Your task to perform on an android device: open app "YouTube Kids" (install if not already installed) and go to login screen Image 0: 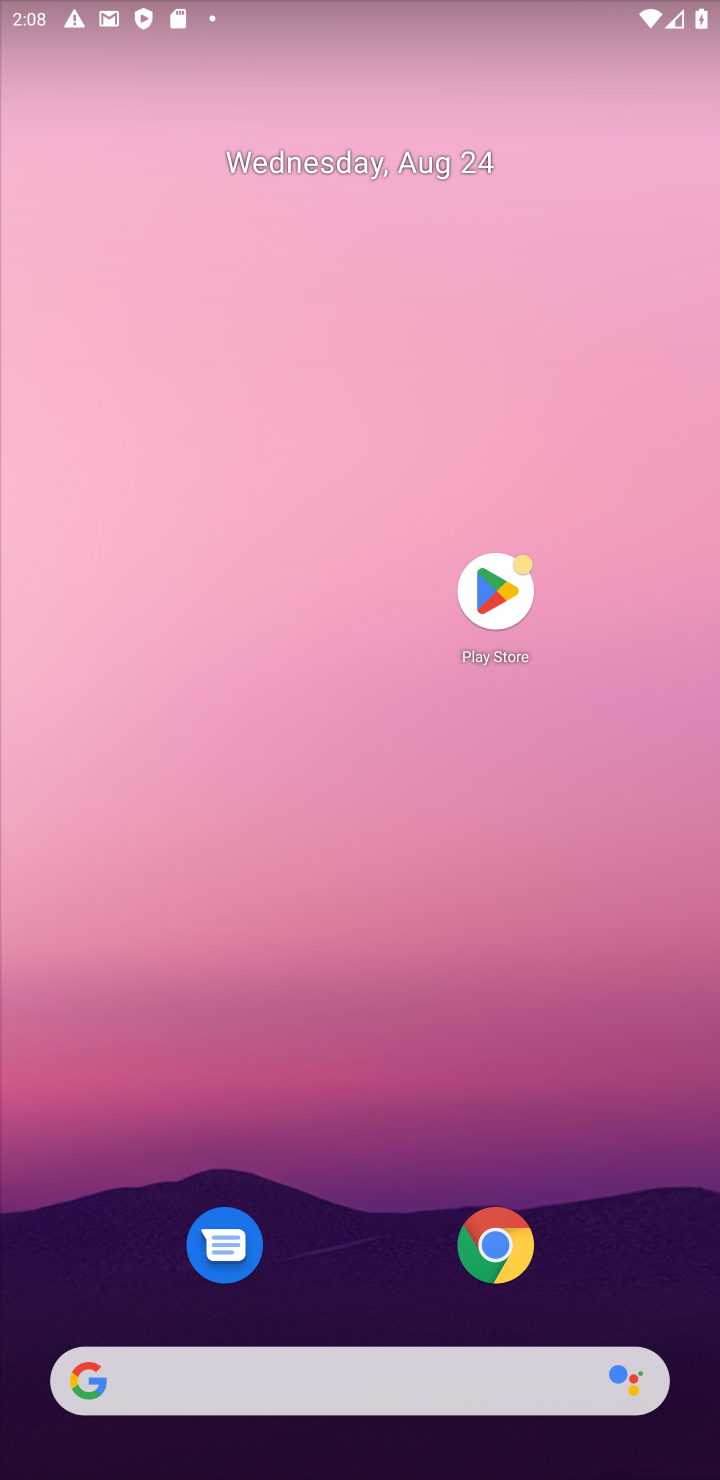
Step 0: click (504, 596)
Your task to perform on an android device: open app "YouTube Kids" (install if not already installed) and go to login screen Image 1: 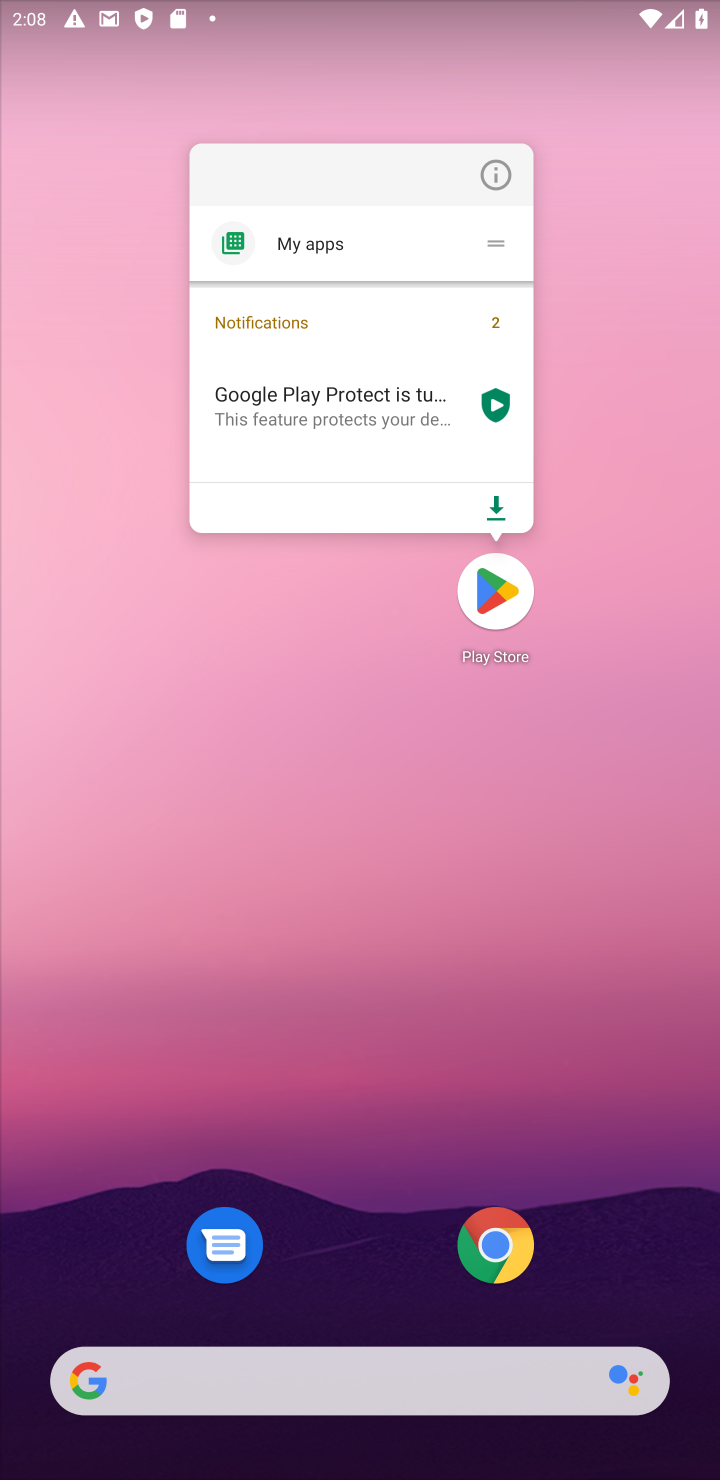
Step 1: click (504, 605)
Your task to perform on an android device: open app "YouTube Kids" (install if not already installed) and go to login screen Image 2: 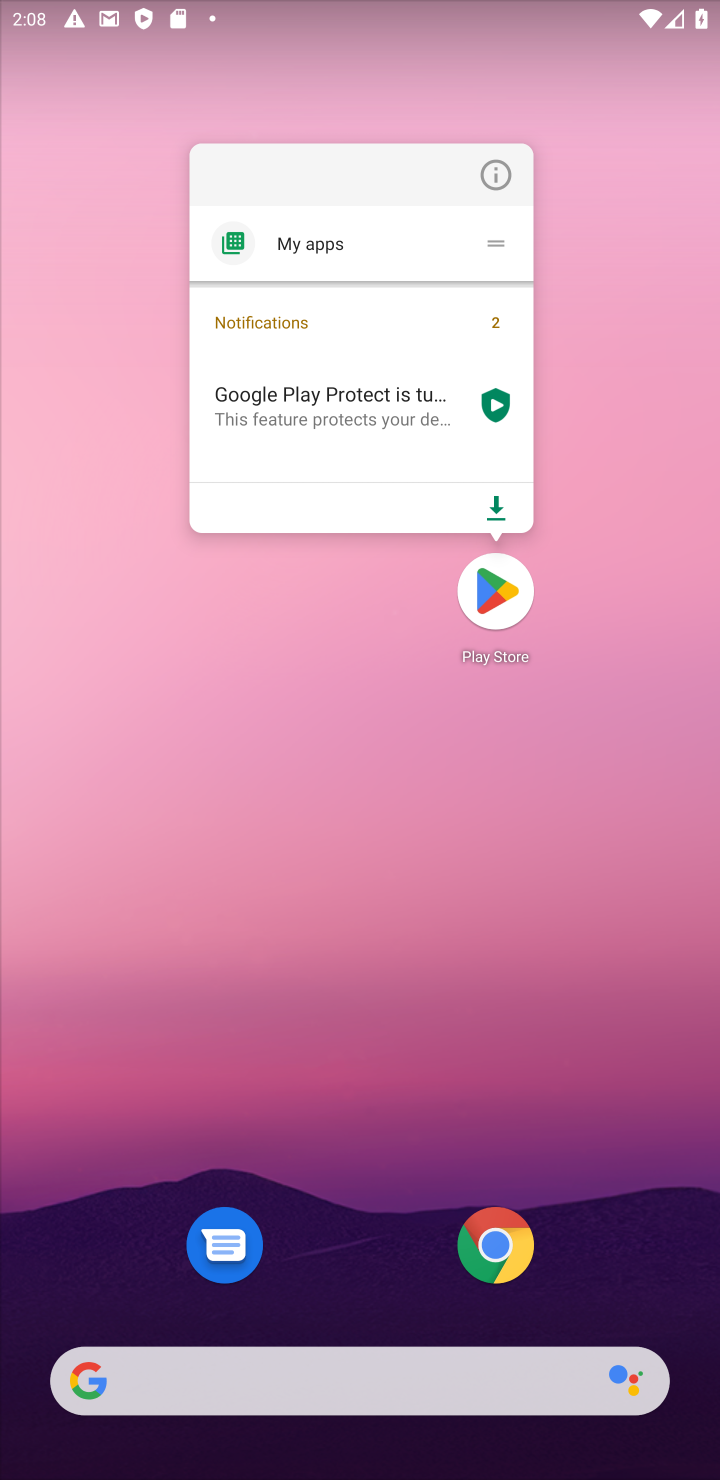
Step 2: click (504, 589)
Your task to perform on an android device: open app "YouTube Kids" (install if not already installed) and go to login screen Image 3: 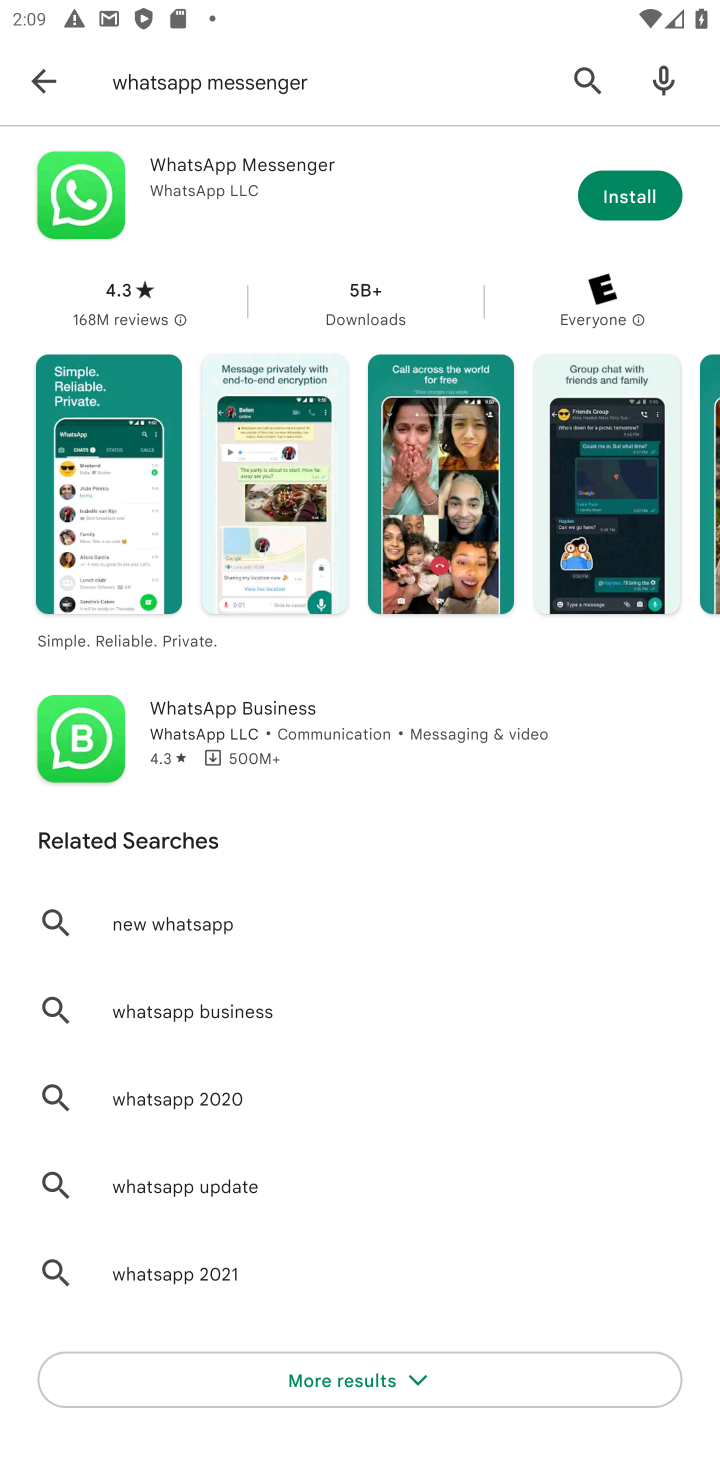
Step 3: click (580, 71)
Your task to perform on an android device: open app "YouTube Kids" (install if not already installed) and go to login screen Image 4: 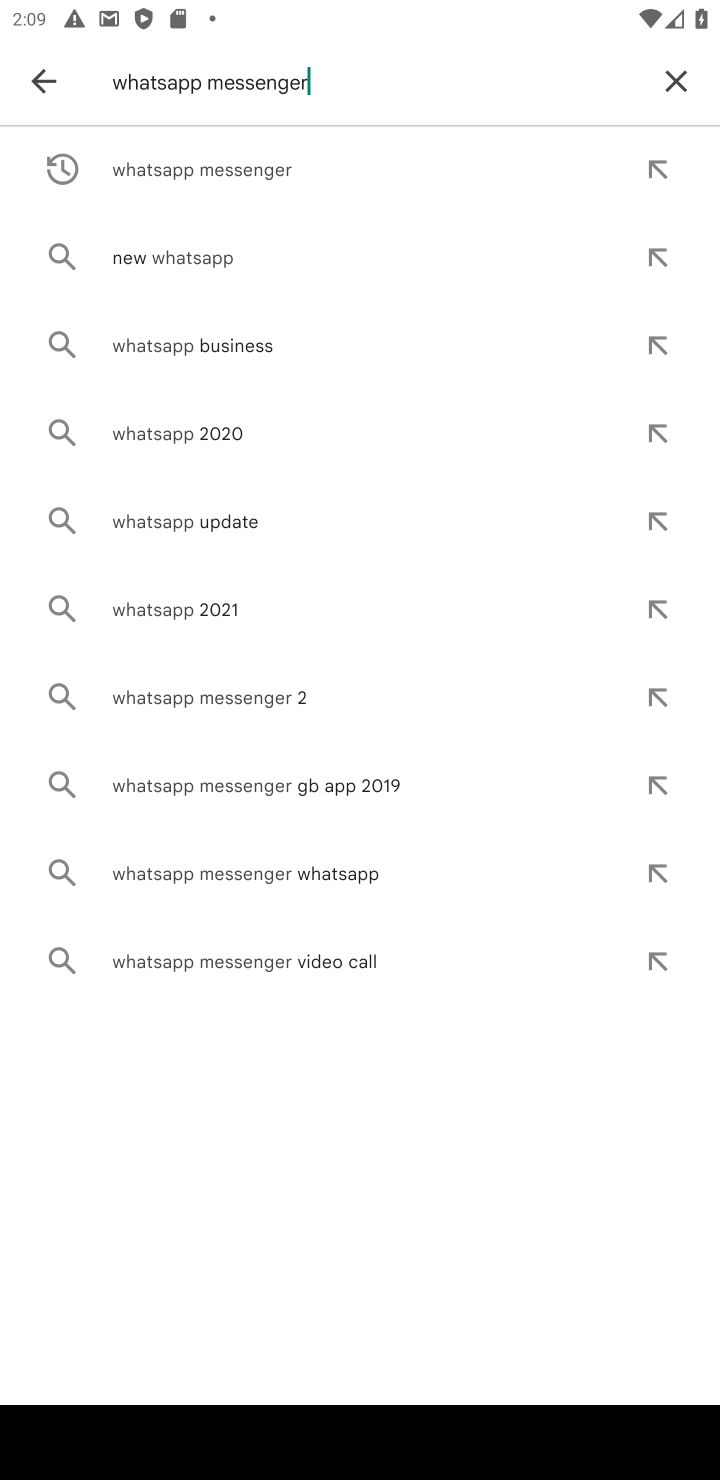
Step 4: click (666, 70)
Your task to perform on an android device: open app "YouTube Kids" (install if not already installed) and go to login screen Image 5: 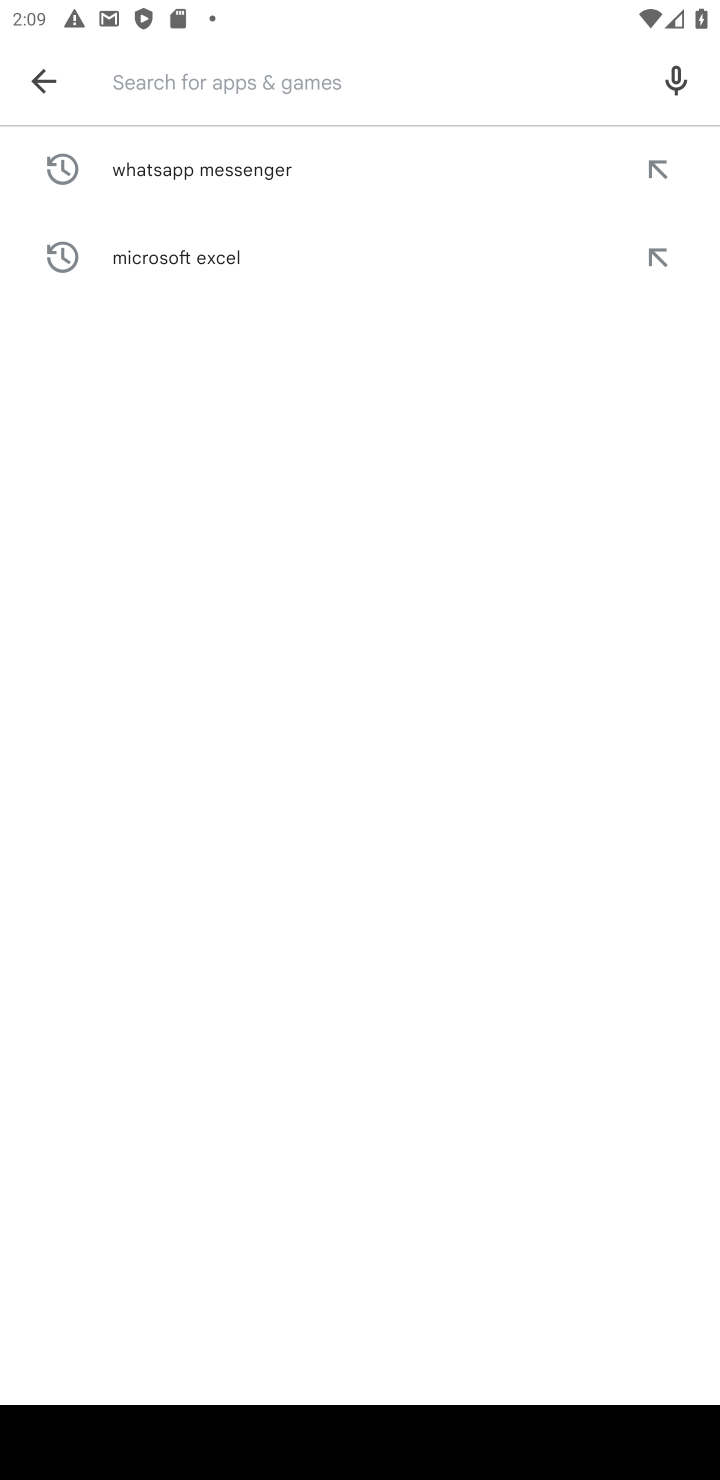
Step 5: type "YouTube Kids"
Your task to perform on an android device: open app "YouTube Kids" (install if not already installed) and go to login screen Image 6: 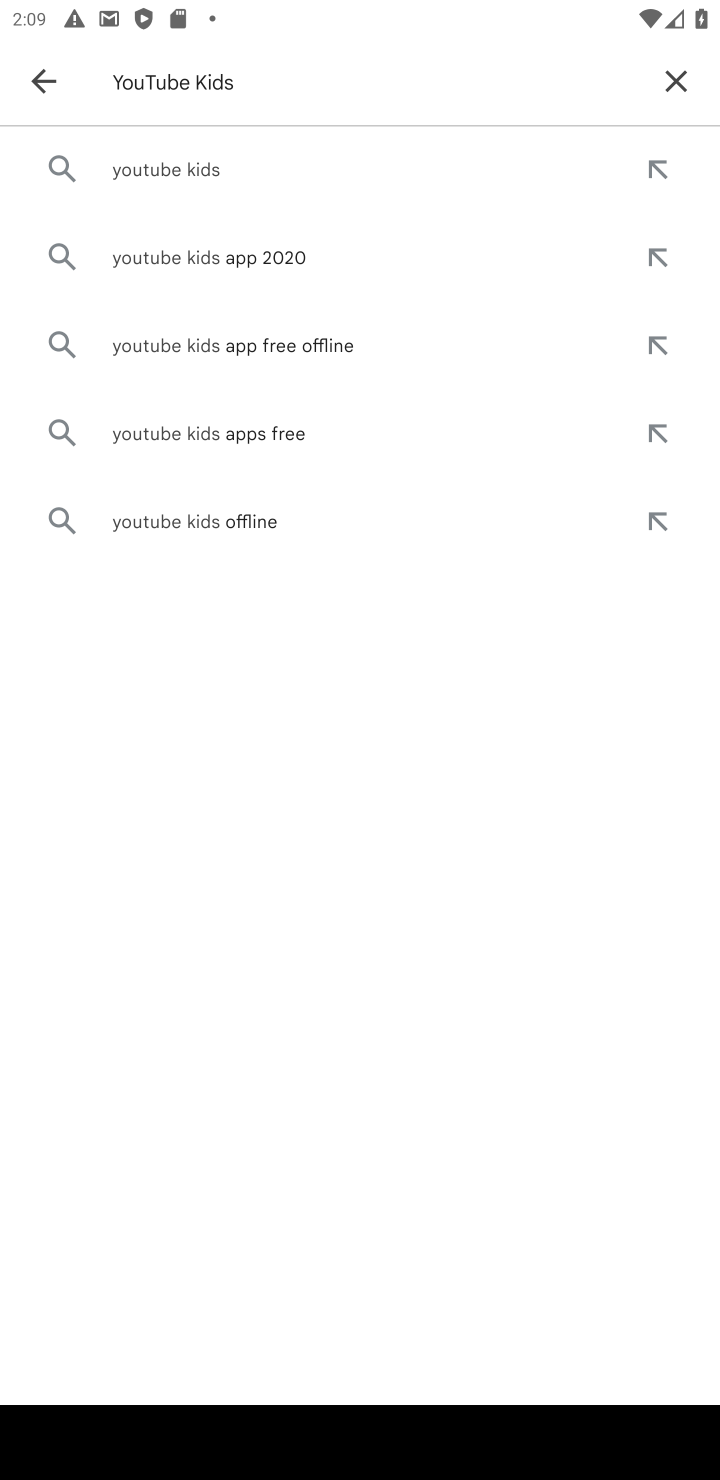
Step 6: click (181, 169)
Your task to perform on an android device: open app "YouTube Kids" (install if not already installed) and go to login screen Image 7: 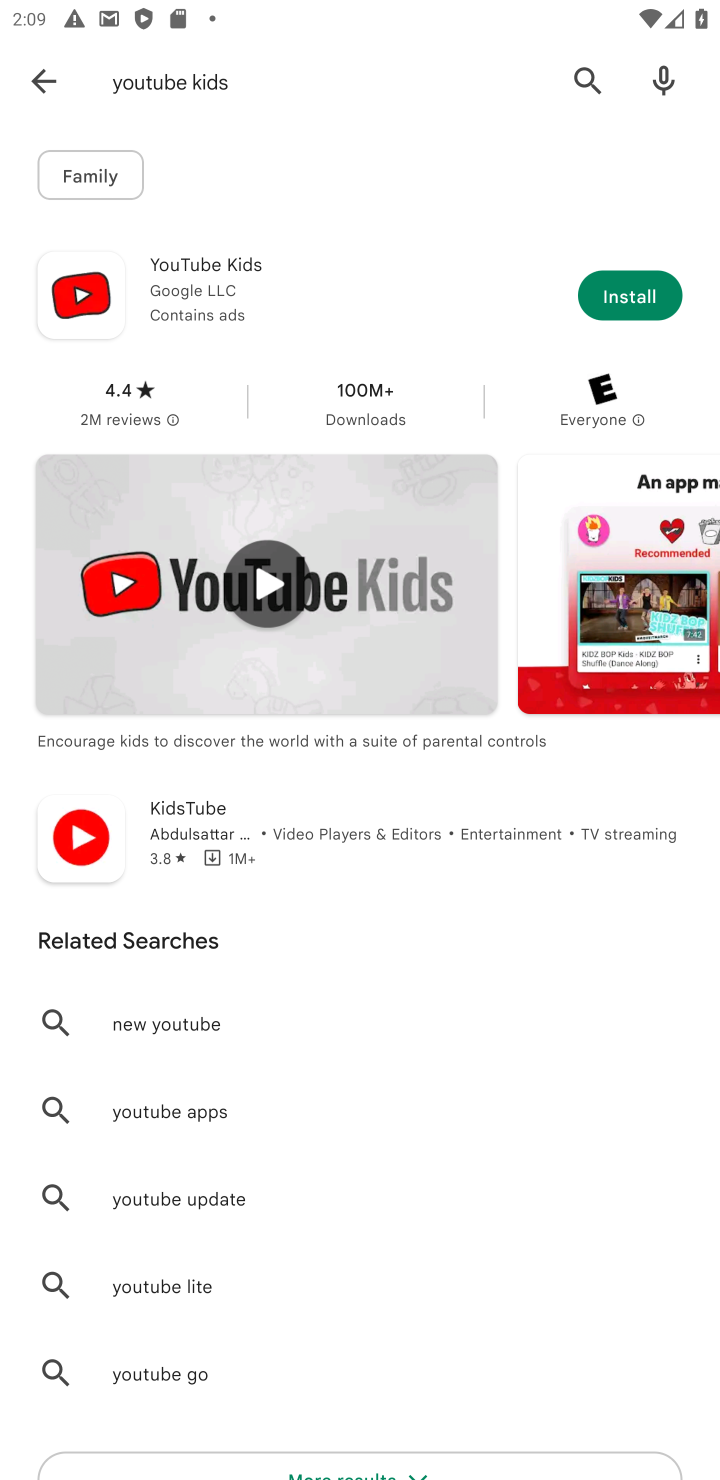
Step 7: click (630, 298)
Your task to perform on an android device: open app "YouTube Kids" (install if not already installed) and go to login screen Image 8: 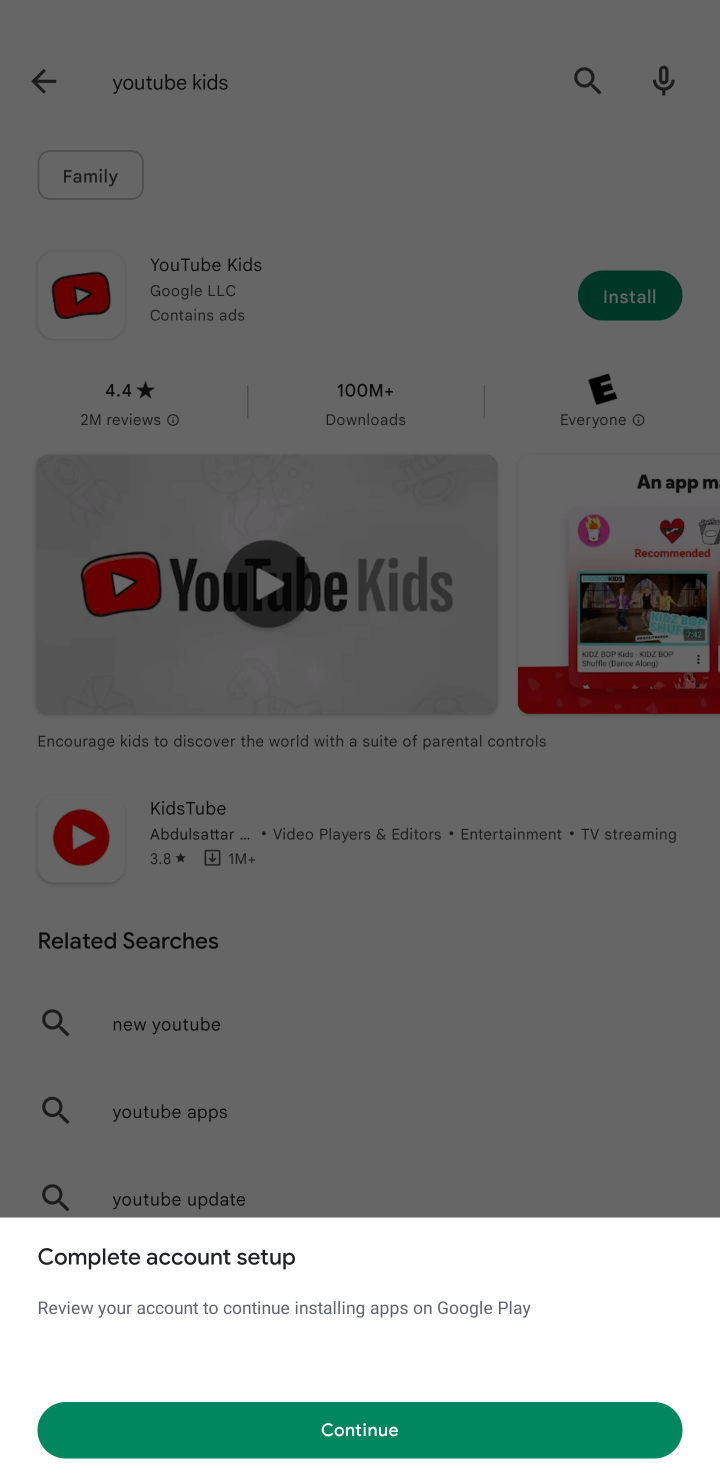
Step 8: click (348, 1427)
Your task to perform on an android device: open app "YouTube Kids" (install if not already installed) and go to login screen Image 9: 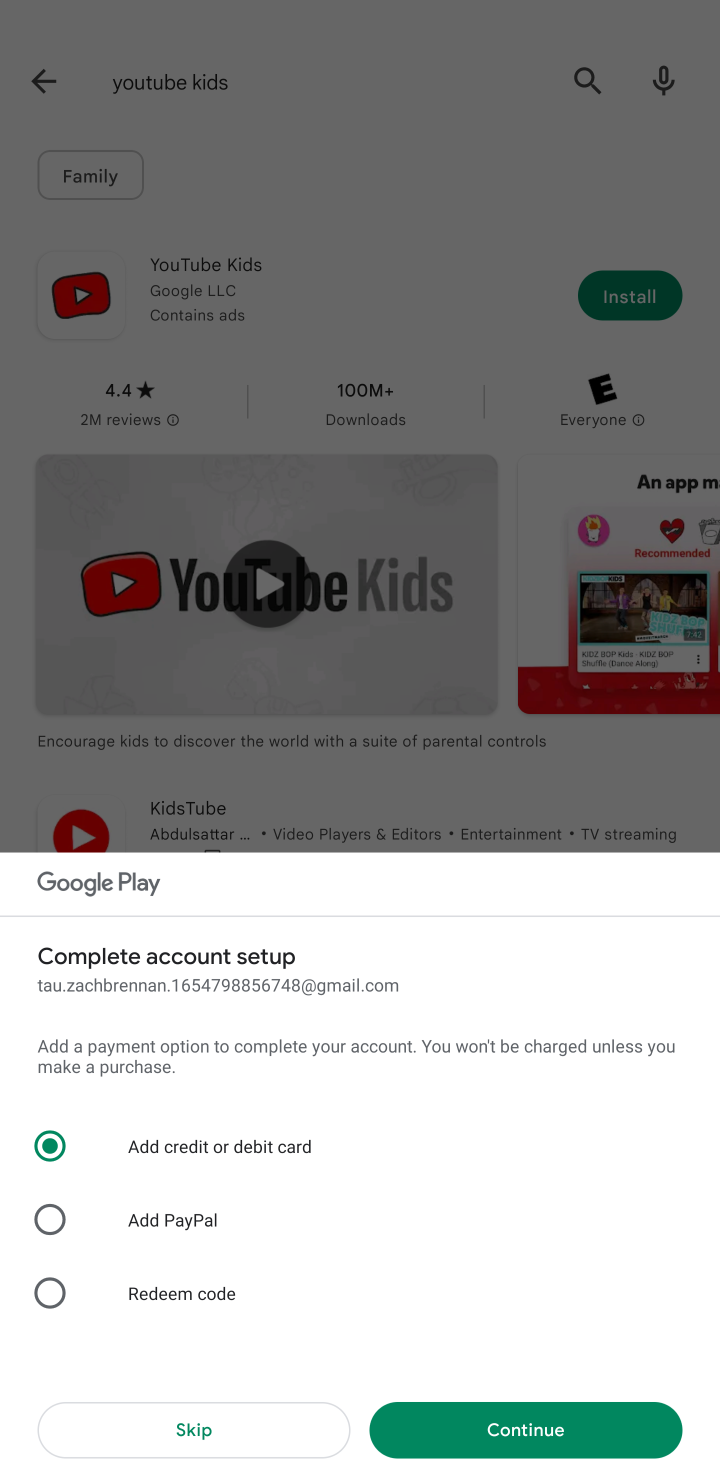
Step 9: click (224, 1435)
Your task to perform on an android device: open app "YouTube Kids" (install if not already installed) and go to login screen Image 10: 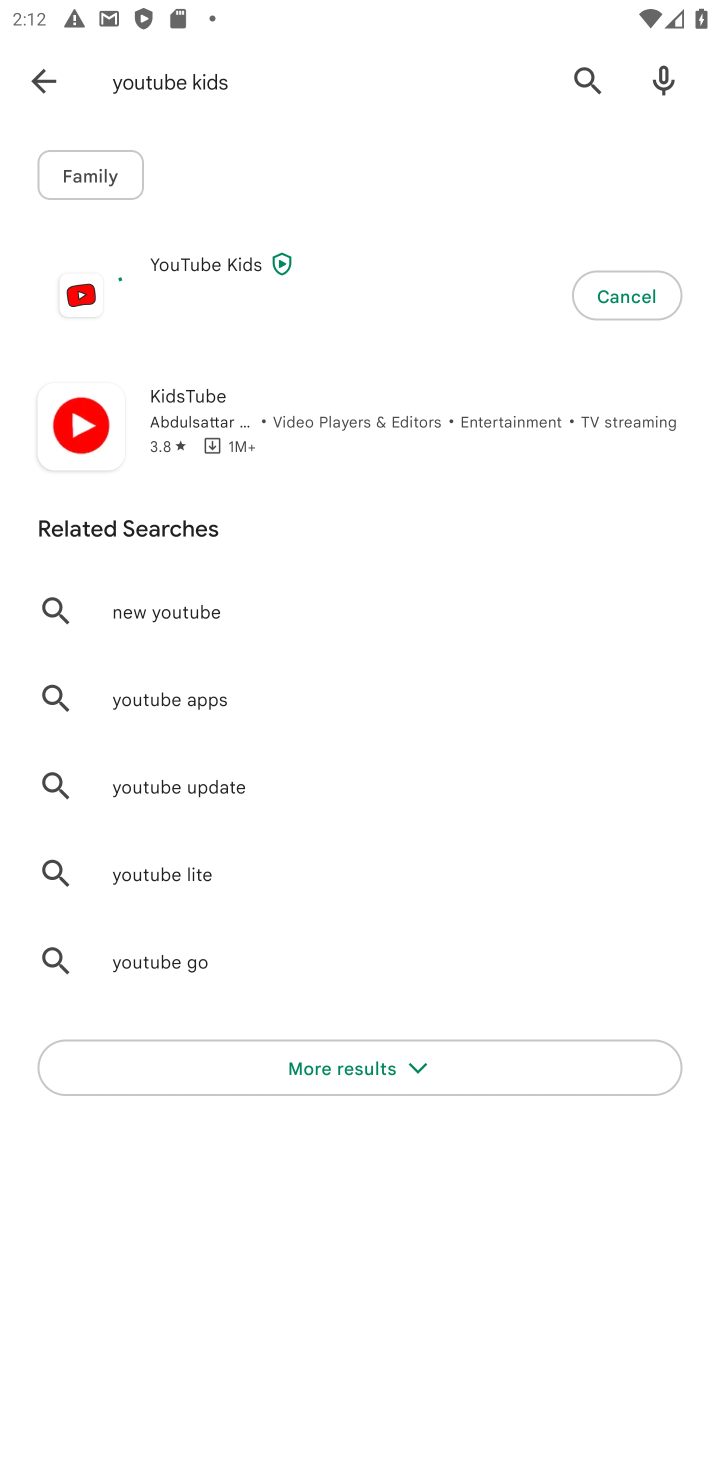
Step 10: task complete